Your task to perform on an android device: Go to ESPN.com Image 0: 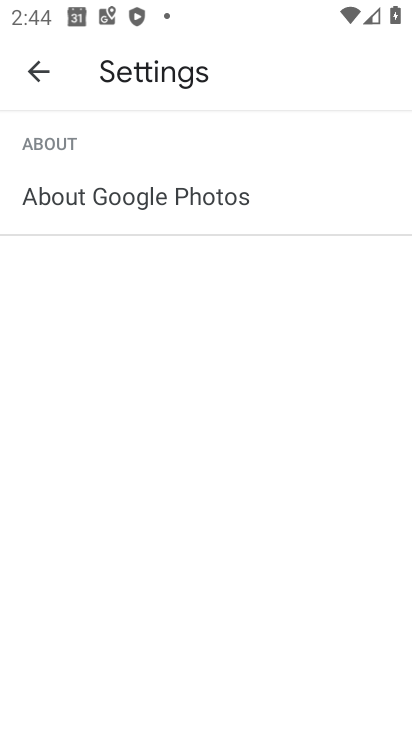
Step 0: press home button
Your task to perform on an android device: Go to ESPN.com Image 1: 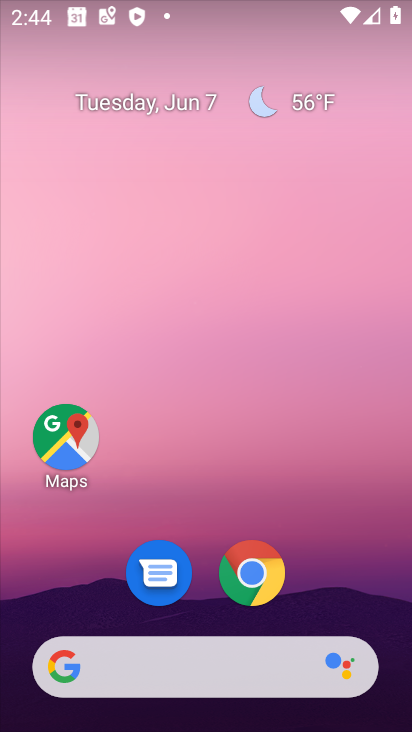
Step 1: click (256, 566)
Your task to perform on an android device: Go to ESPN.com Image 2: 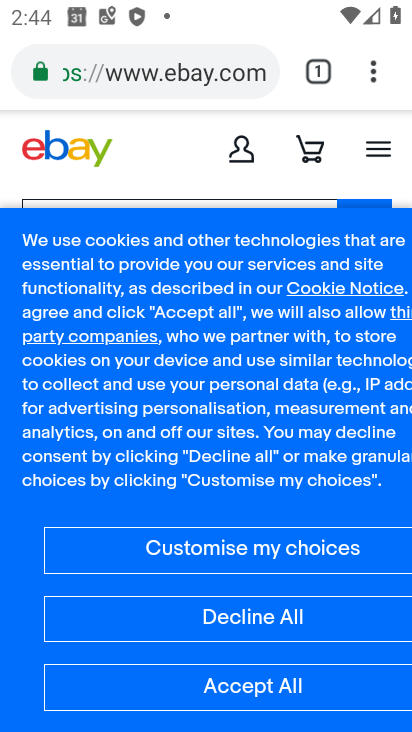
Step 2: click (208, 73)
Your task to perform on an android device: Go to ESPN.com Image 3: 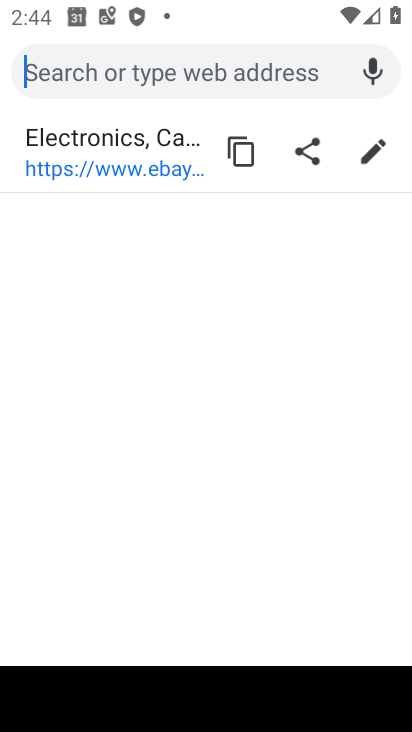
Step 3: type "ESPN.com"
Your task to perform on an android device: Go to ESPN.com Image 4: 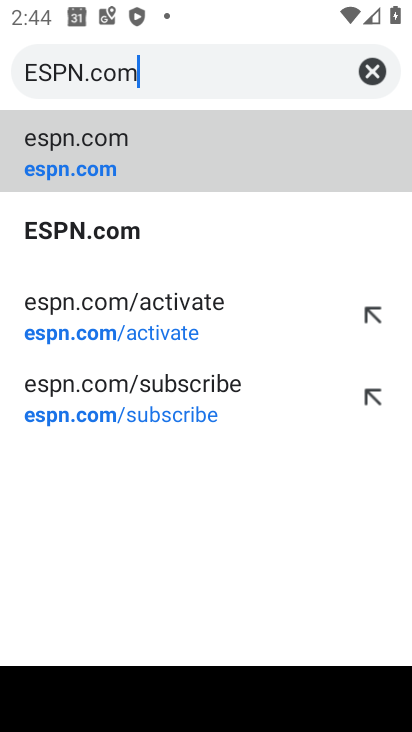
Step 4: click (67, 148)
Your task to perform on an android device: Go to ESPN.com Image 5: 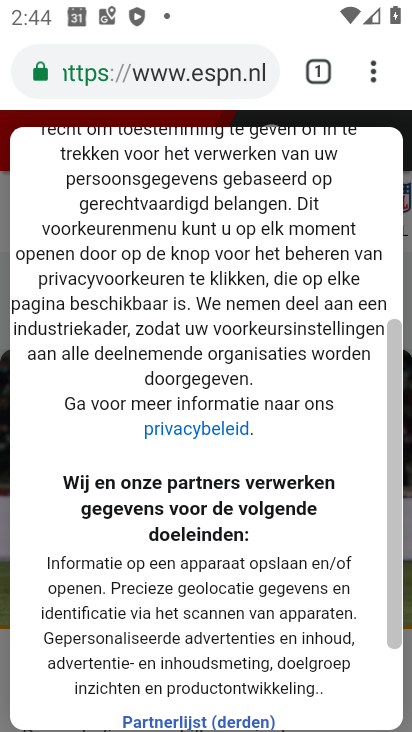
Step 5: task complete